Your task to perform on an android device: Open Youtube and go to "Your channel" Image 0: 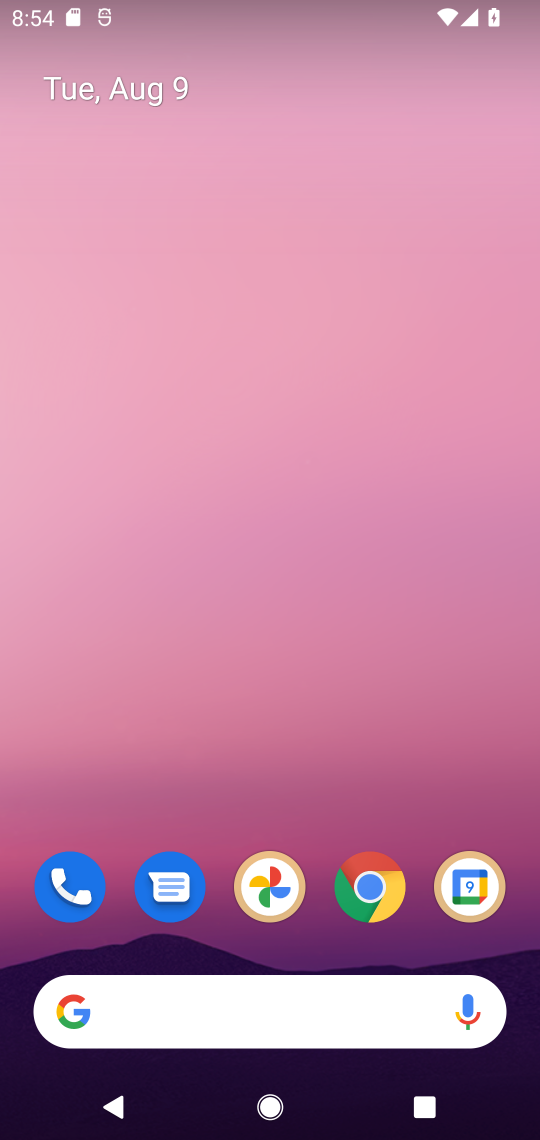
Step 0: drag from (324, 705) to (352, 76)
Your task to perform on an android device: Open Youtube and go to "Your channel" Image 1: 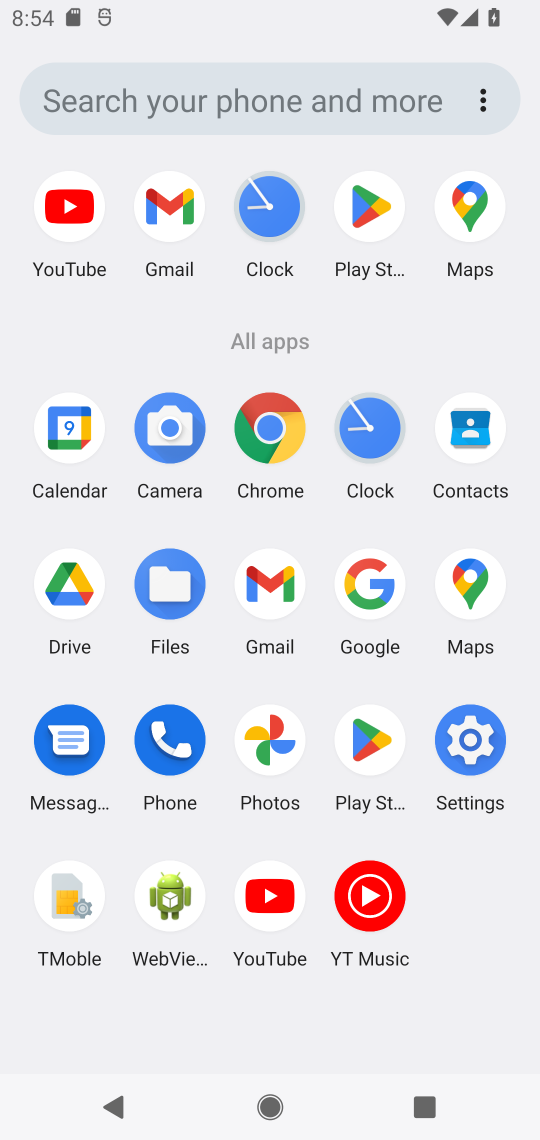
Step 1: click (279, 911)
Your task to perform on an android device: Open Youtube and go to "Your channel" Image 2: 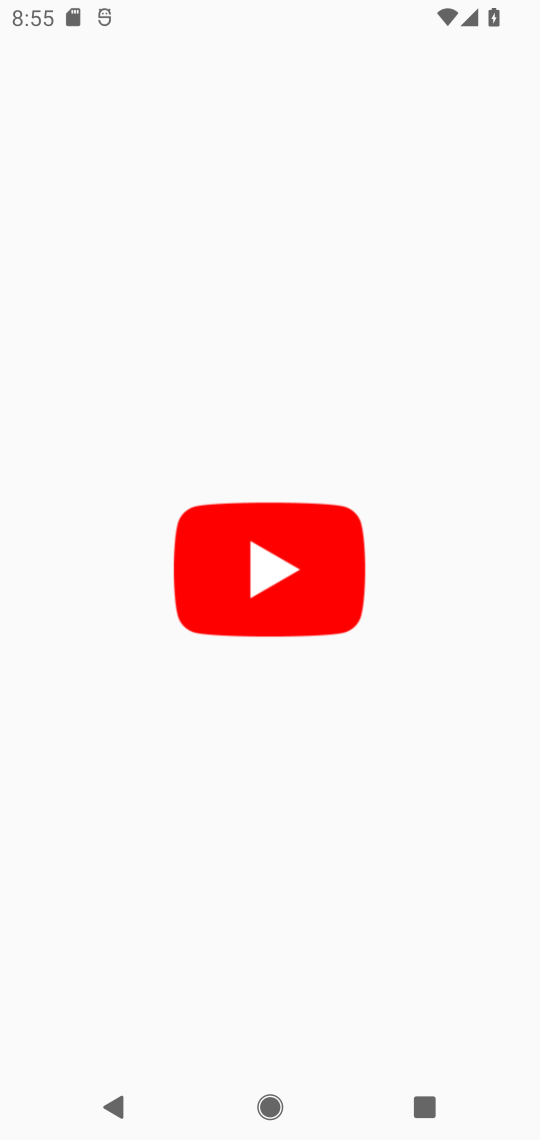
Step 2: task complete